Your task to perform on an android device: Open Reddit.com Image 0: 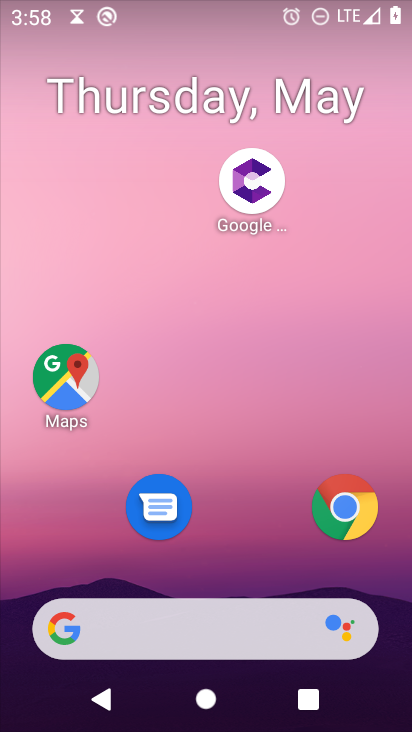
Step 0: click (66, 641)
Your task to perform on an android device: Open Reddit.com Image 1: 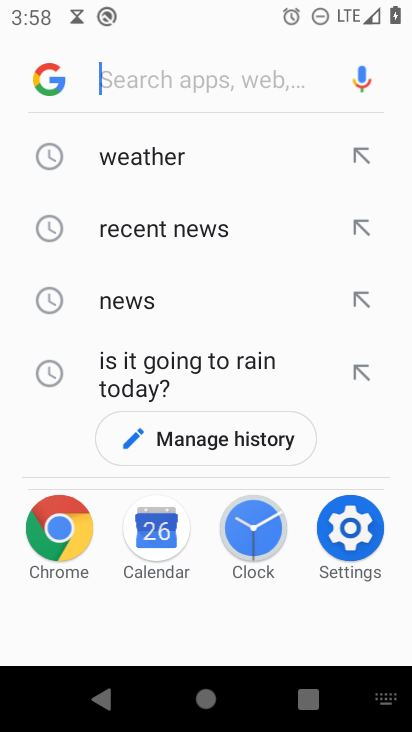
Step 1: drag from (235, 324) to (238, 79)
Your task to perform on an android device: Open Reddit.com Image 2: 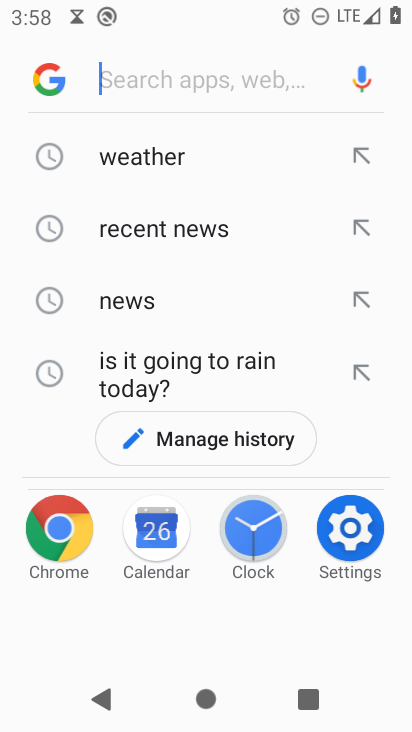
Step 2: type "Reddit.com"
Your task to perform on an android device: Open Reddit.com Image 3: 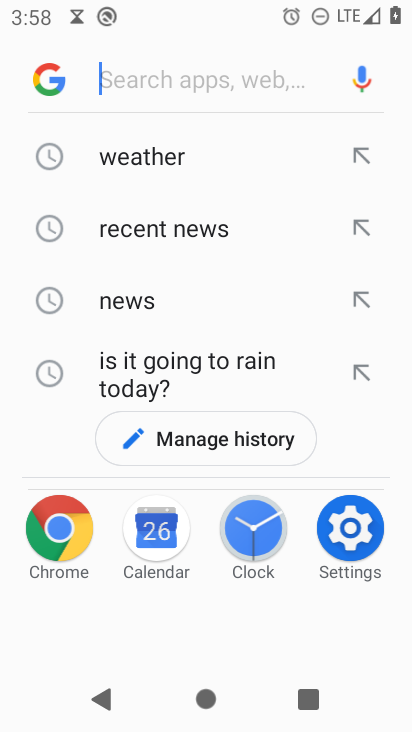
Step 3: click (167, 77)
Your task to perform on an android device: Open Reddit.com Image 4: 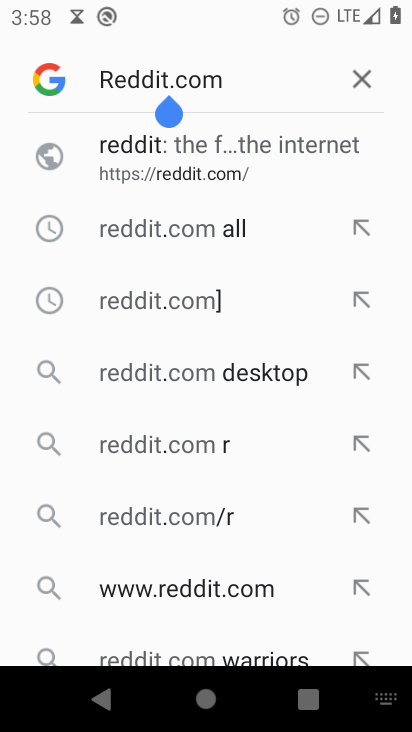
Step 4: click (262, 152)
Your task to perform on an android device: Open Reddit.com Image 5: 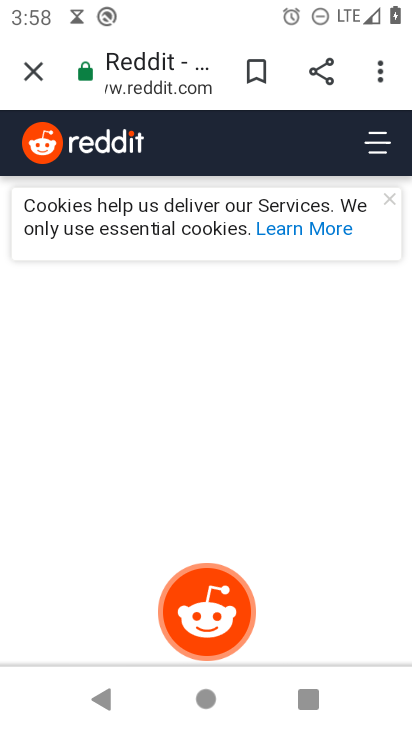
Step 5: task complete